Your task to perform on an android device: turn off sleep mode Image 0: 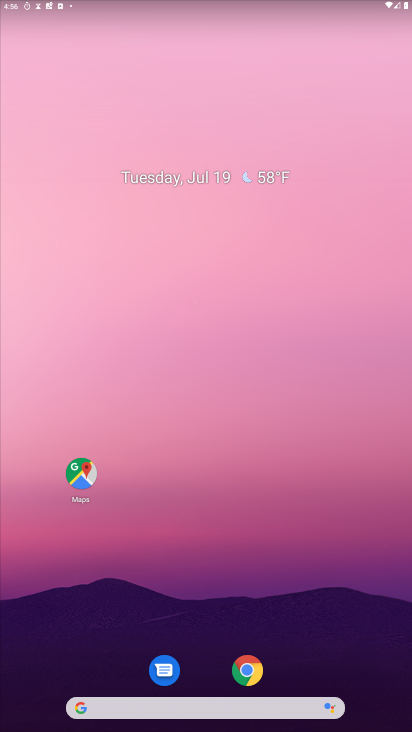
Step 0: drag from (150, 686) to (215, 147)
Your task to perform on an android device: turn off sleep mode Image 1: 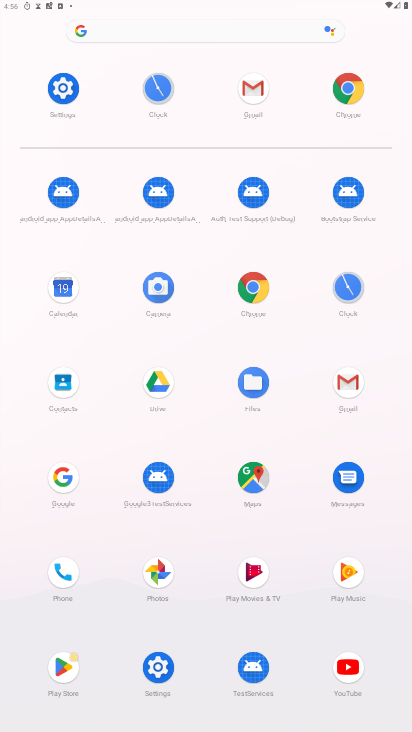
Step 1: click (58, 78)
Your task to perform on an android device: turn off sleep mode Image 2: 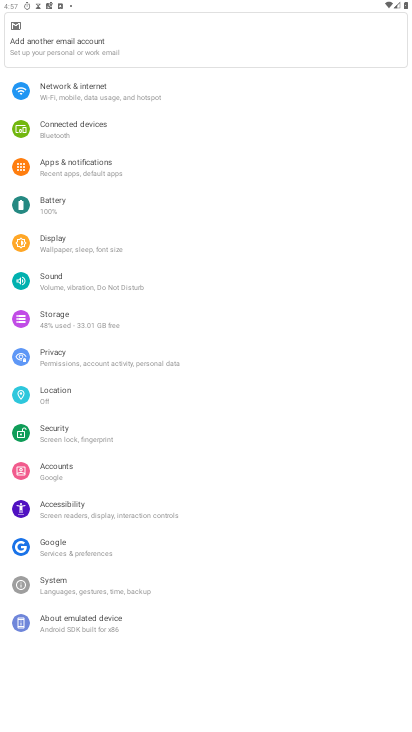
Step 2: click (82, 276)
Your task to perform on an android device: turn off sleep mode Image 3: 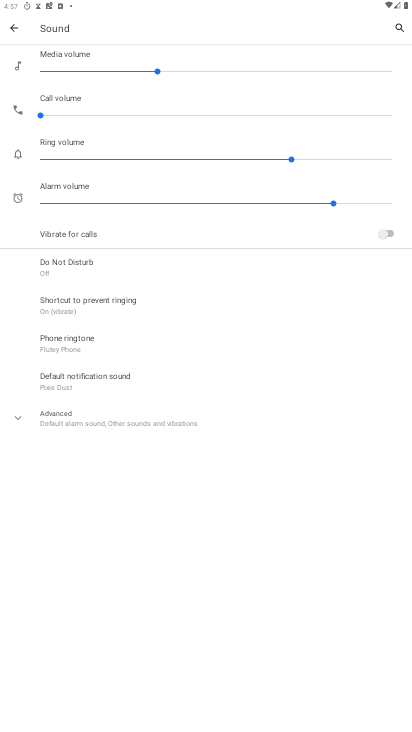
Step 3: task complete